Your task to perform on an android device: see tabs open on other devices in the chrome app Image 0: 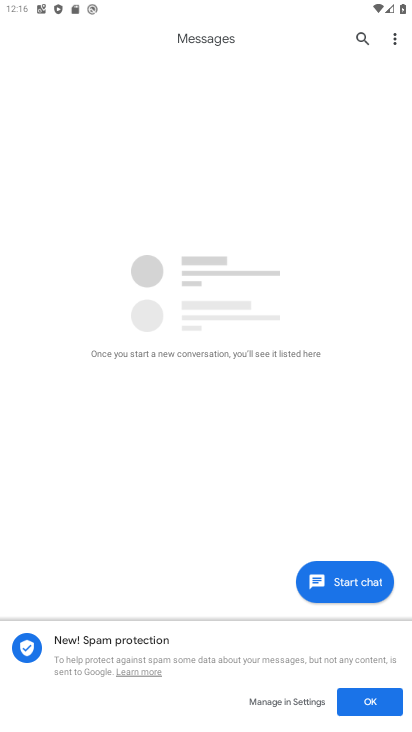
Step 0: press back button
Your task to perform on an android device: see tabs open on other devices in the chrome app Image 1: 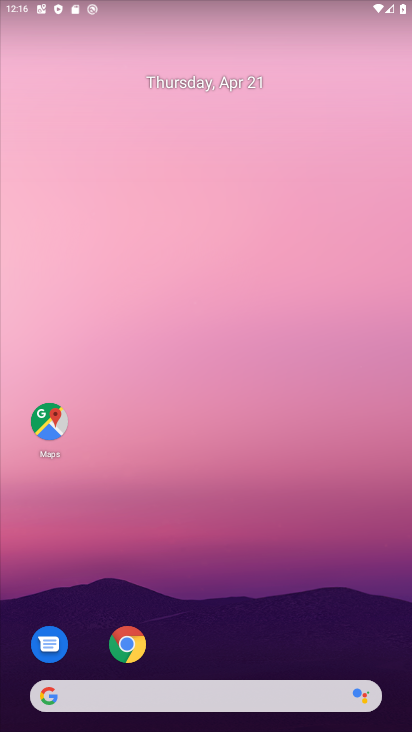
Step 1: click (135, 626)
Your task to perform on an android device: see tabs open on other devices in the chrome app Image 2: 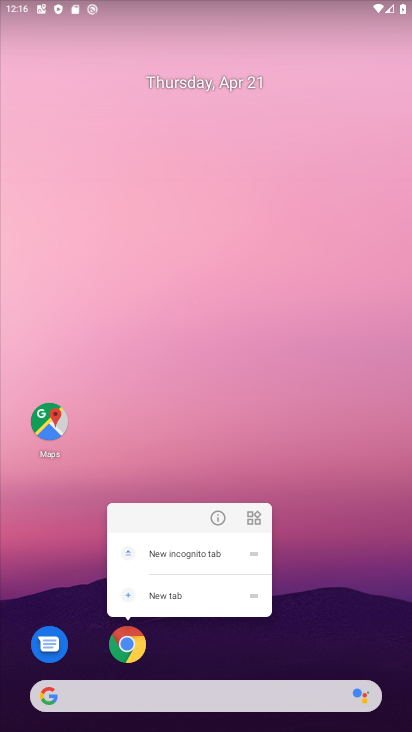
Step 2: click (133, 645)
Your task to perform on an android device: see tabs open on other devices in the chrome app Image 3: 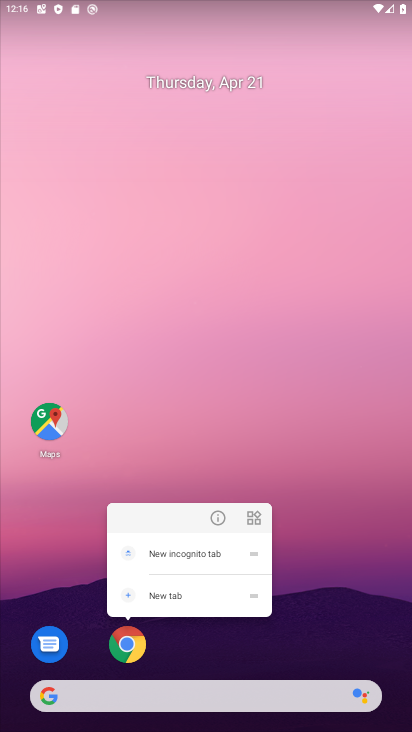
Step 3: click (129, 646)
Your task to perform on an android device: see tabs open on other devices in the chrome app Image 4: 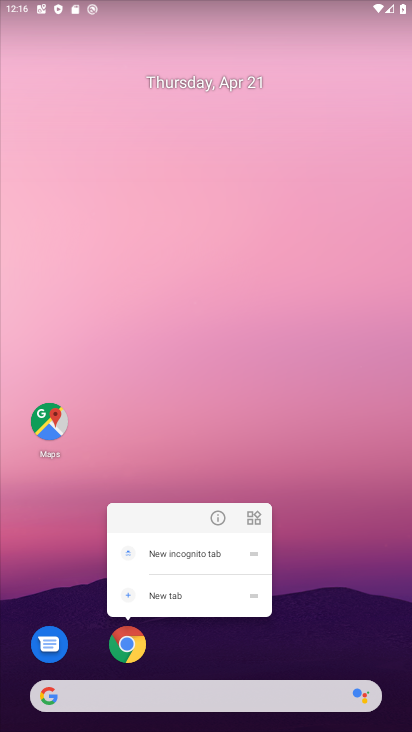
Step 4: click (121, 651)
Your task to perform on an android device: see tabs open on other devices in the chrome app Image 5: 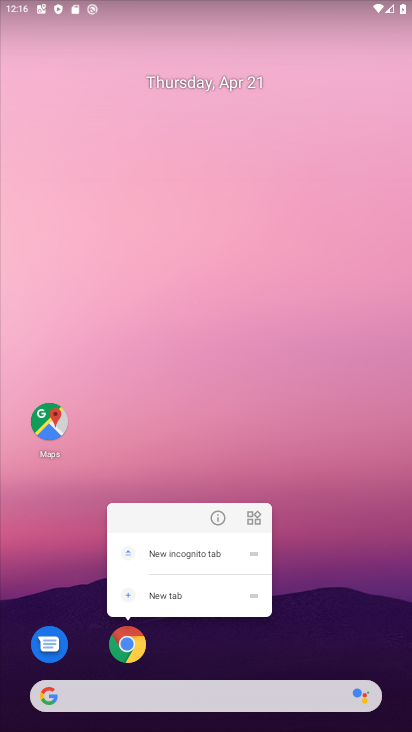
Step 5: click (135, 644)
Your task to perform on an android device: see tabs open on other devices in the chrome app Image 6: 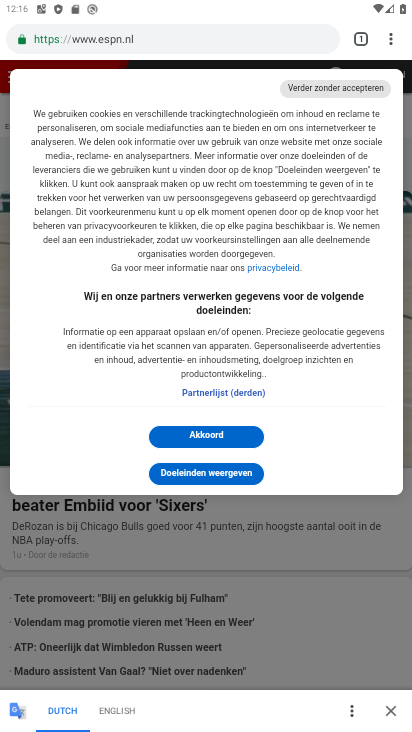
Step 6: task complete